Your task to perform on an android device: Open Google Chrome and open the bookmarks view Image 0: 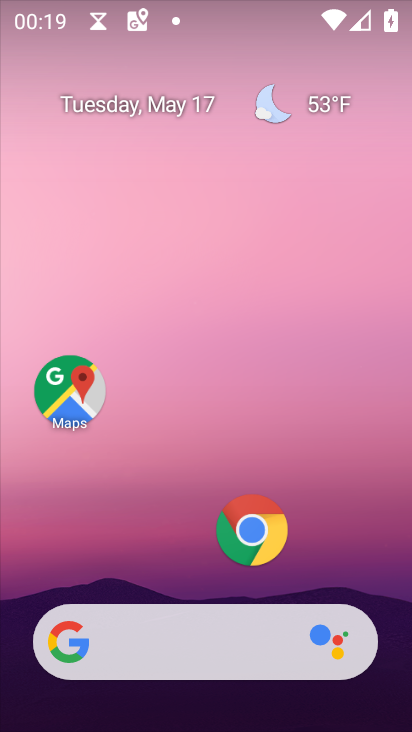
Step 0: drag from (340, 542) to (287, 541)
Your task to perform on an android device: Open Google Chrome and open the bookmarks view Image 1: 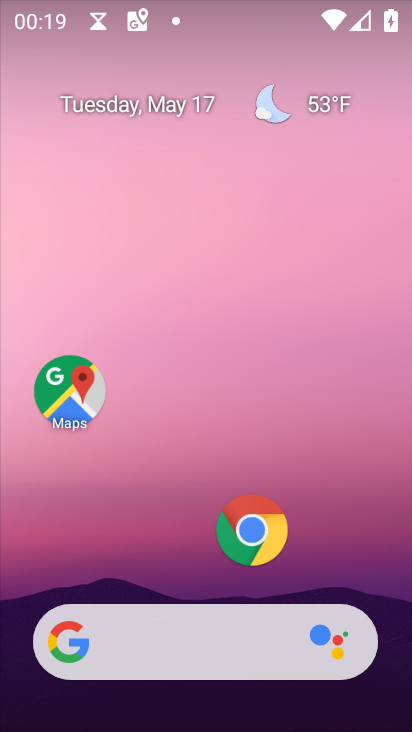
Step 1: click (286, 541)
Your task to perform on an android device: Open Google Chrome and open the bookmarks view Image 2: 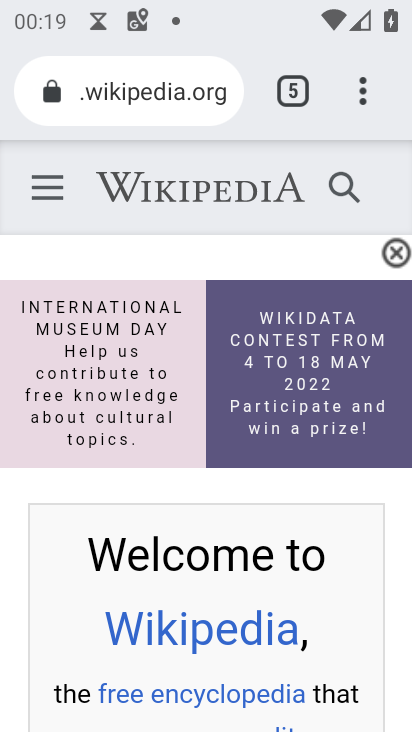
Step 2: click (370, 84)
Your task to perform on an android device: Open Google Chrome and open the bookmarks view Image 3: 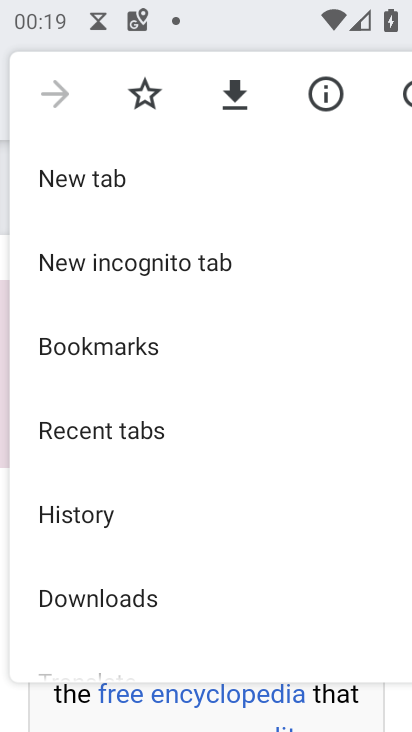
Step 3: drag from (152, 541) to (136, 299)
Your task to perform on an android device: Open Google Chrome and open the bookmarks view Image 4: 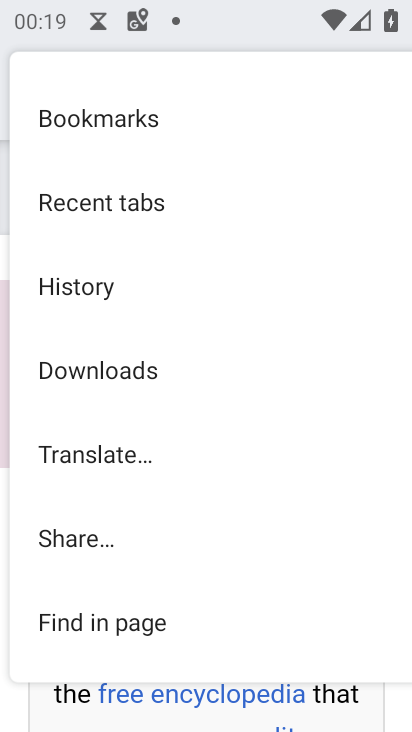
Step 4: drag from (221, 465) to (237, 156)
Your task to perform on an android device: Open Google Chrome and open the bookmarks view Image 5: 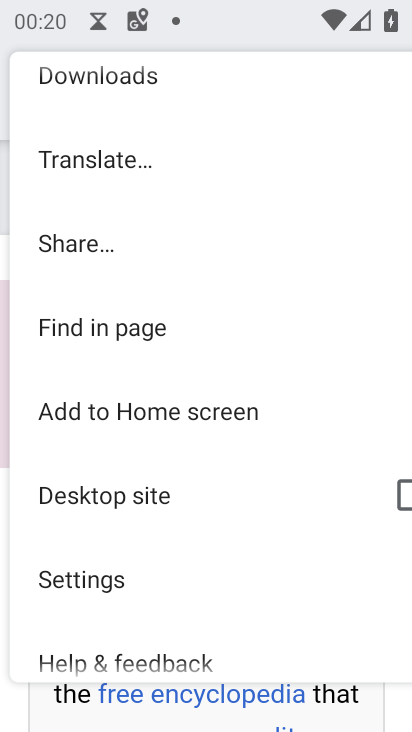
Step 5: drag from (204, 134) to (208, 547)
Your task to perform on an android device: Open Google Chrome and open the bookmarks view Image 6: 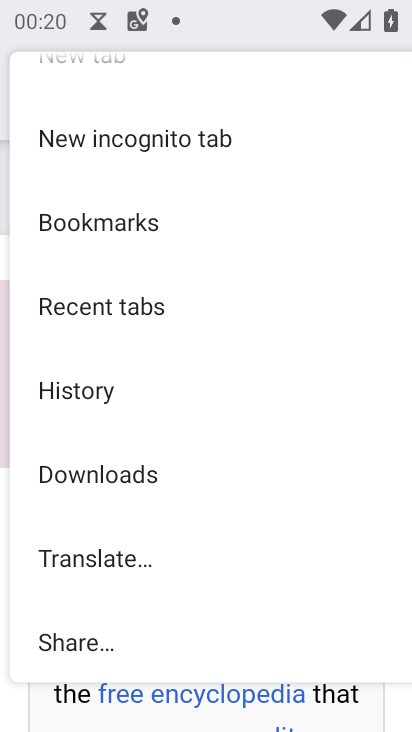
Step 6: click (112, 233)
Your task to perform on an android device: Open Google Chrome and open the bookmarks view Image 7: 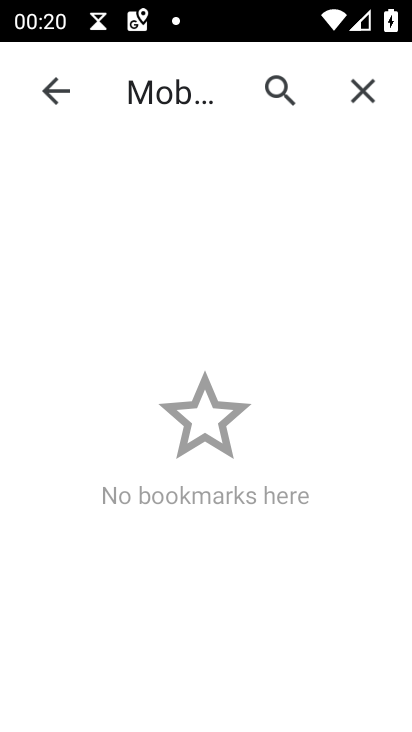
Step 7: task complete